Your task to perform on an android device: turn pop-ups on in chrome Image 0: 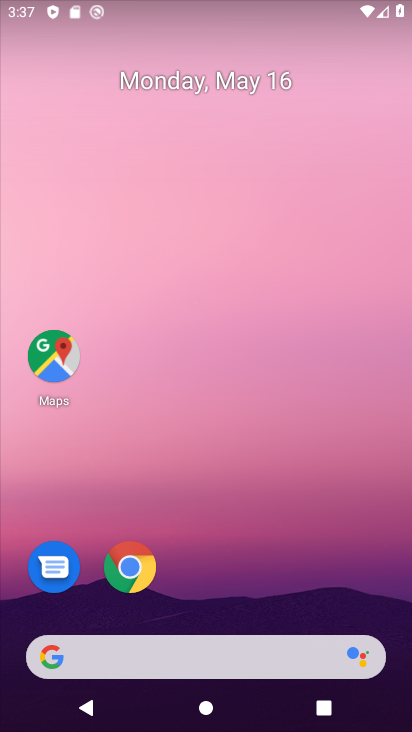
Step 0: drag from (253, 599) to (291, 1)
Your task to perform on an android device: turn pop-ups on in chrome Image 1: 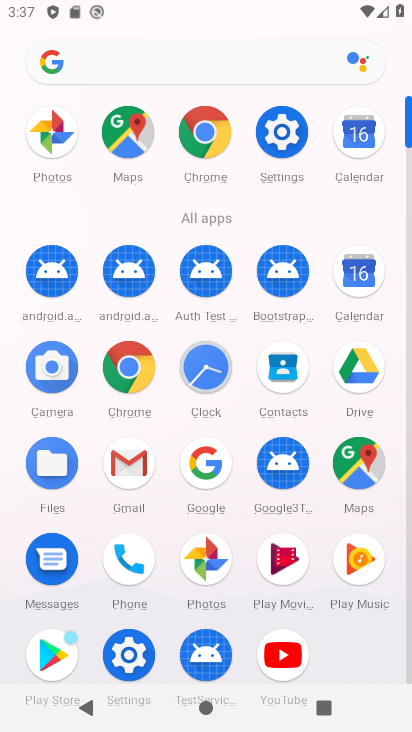
Step 1: click (127, 363)
Your task to perform on an android device: turn pop-ups on in chrome Image 2: 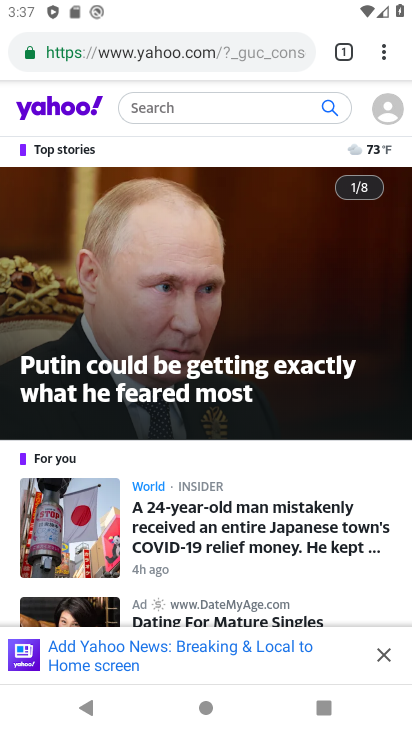
Step 2: click (388, 52)
Your task to perform on an android device: turn pop-ups on in chrome Image 3: 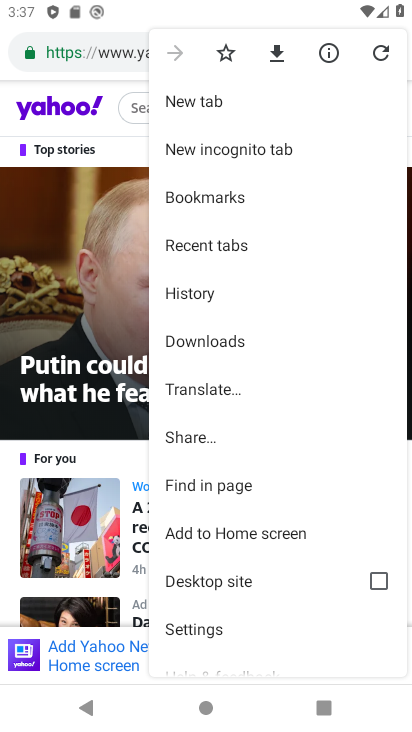
Step 3: click (231, 627)
Your task to perform on an android device: turn pop-ups on in chrome Image 4: 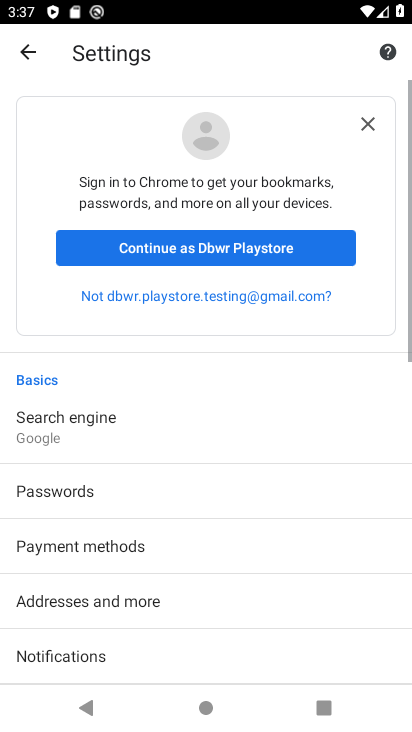
Step 4: drag from (247, 593) to (240, 56)
Your task to perform on an android device: turn pop-ups on in chrome Image 5: 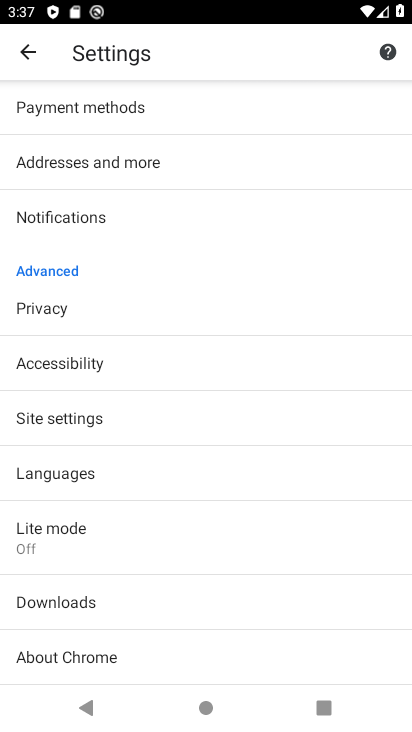
Step 5: drag from (158, 615) to (215, 214)
Your task to perform on an android device: turn pop-ups on in chrome Image 6: 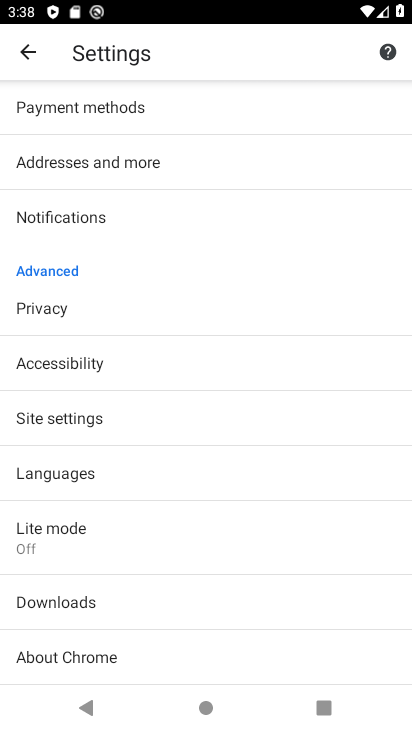
Step 6: click (135, 403)
Your task to perform on an android device: turn pop-ups on in chrome Image 7: 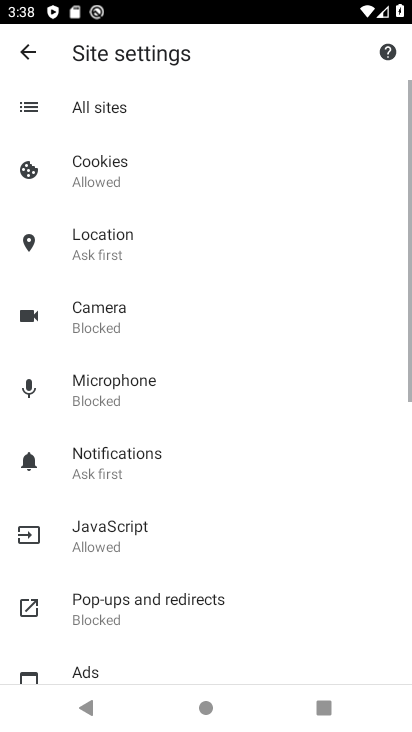
Step 7: drag from (211, 630) to (271, 169)
Your task to perform on an android device: turn pop-ups on in chrome Image 8: 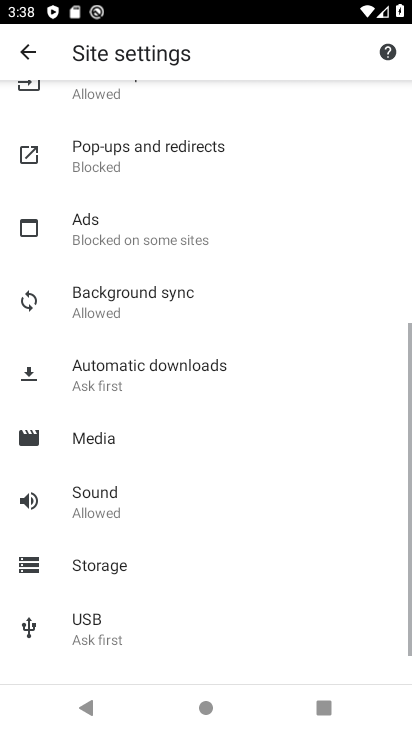
Step 8: click (169, 156)
Your task to perform on an android device: turn pop-ups on in chrome Image 9: 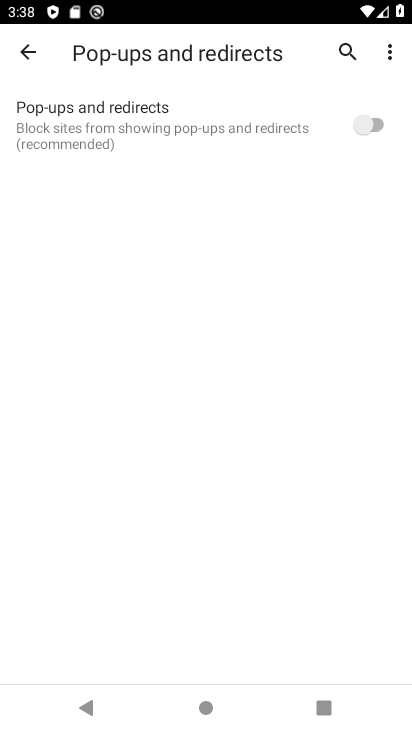
Step 9: click (374, 120)
Your task to perform on an android device: turn pop-ups on in chrome Image 10: 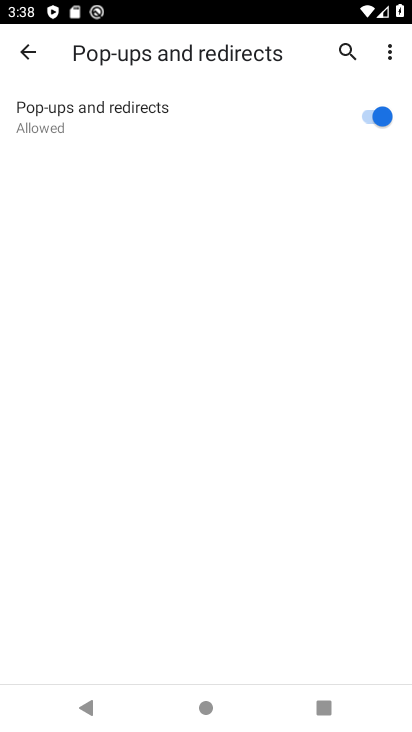
Step 10: task complete